Your task to perform on an android device: move an email to a new category in the gmail app Image 0: 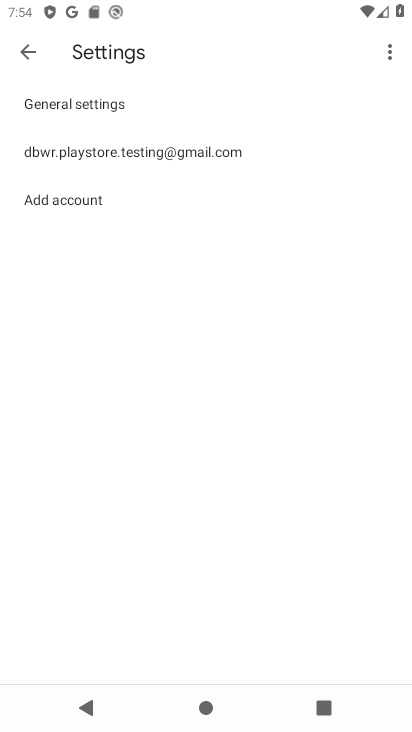
Step 0: press home button
Your task to perform on an android device: move an email to a new category in the gmail app Image 1: 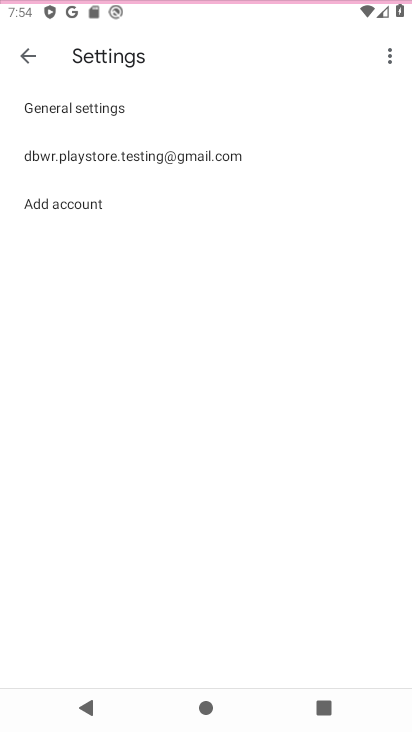
Step 1: press home button
Your task to perform on an android device: move an email to a new category in the gmail app Image 2: 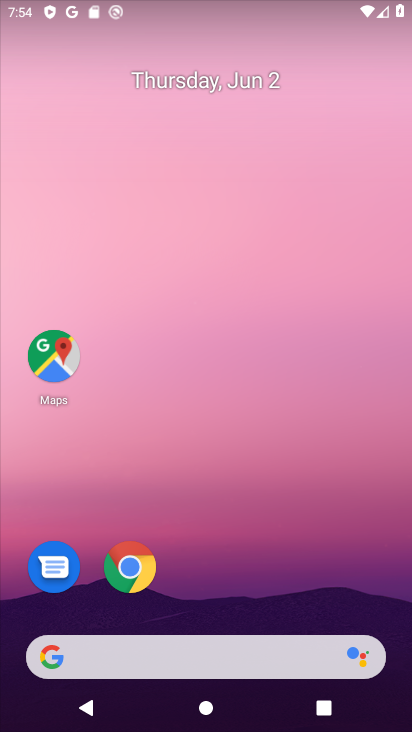
Step 2: drag from (286, 587) to (185, 218)
Your task to perform on an android device: move an email to a new category in the gmail app Image 3: 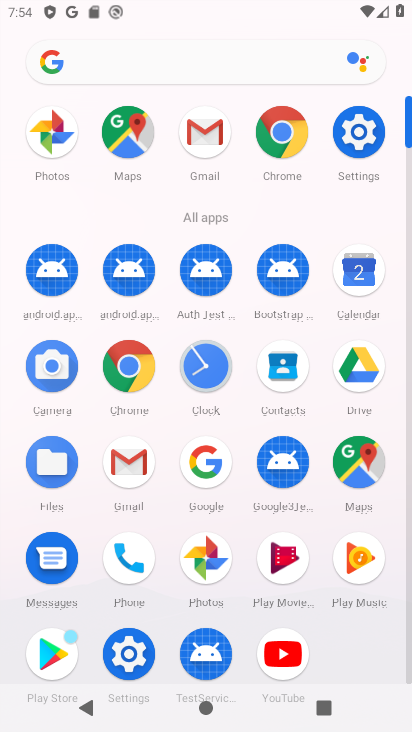
Step 3: click (209, 137)
Your task to perform on an android device: move an email to a new category in the gmail app Image 4: 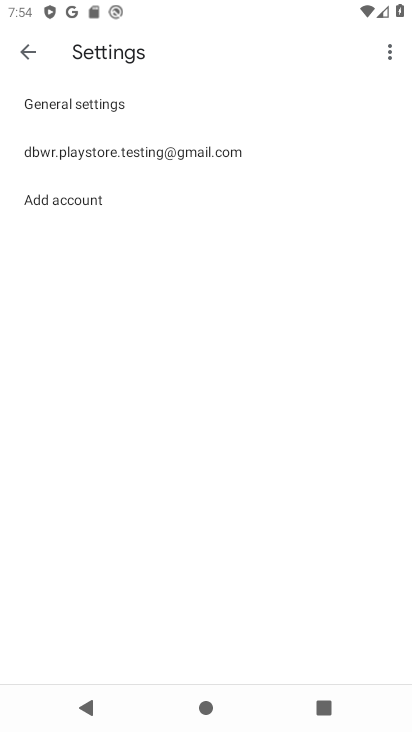
Step 4: click (31, 52)
Your task to perform on an android device: move an email to a new category in the gmail app Image 5: 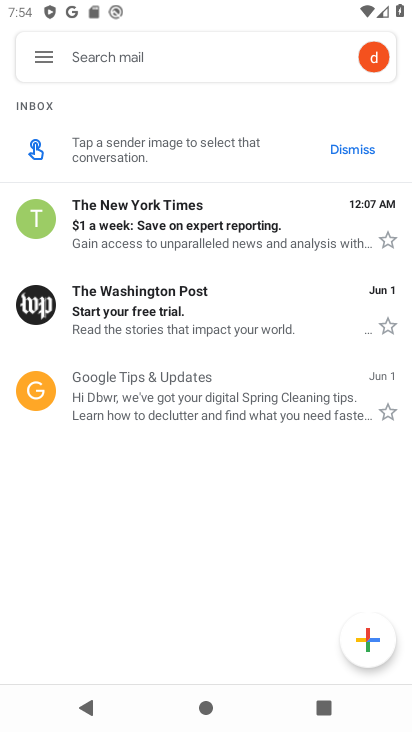
Step 5: click (219, 223)
Your task to perform on an android device: move an email to a new category in the gmail app Image 6: 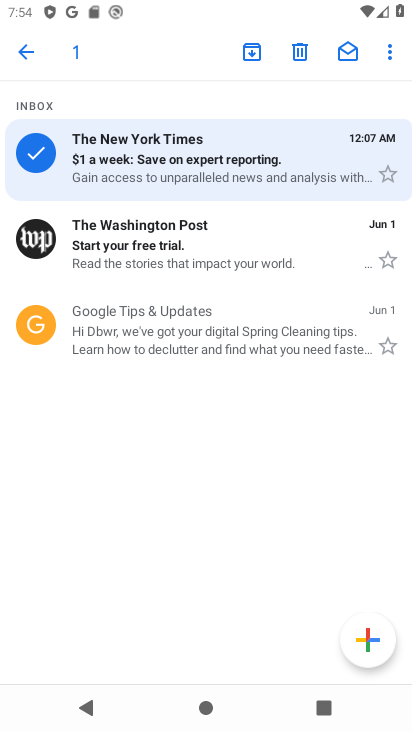
Step 6: click (395, 52)
Your task to perform on an android device: move an email to a new category in the gmail app Image 7: 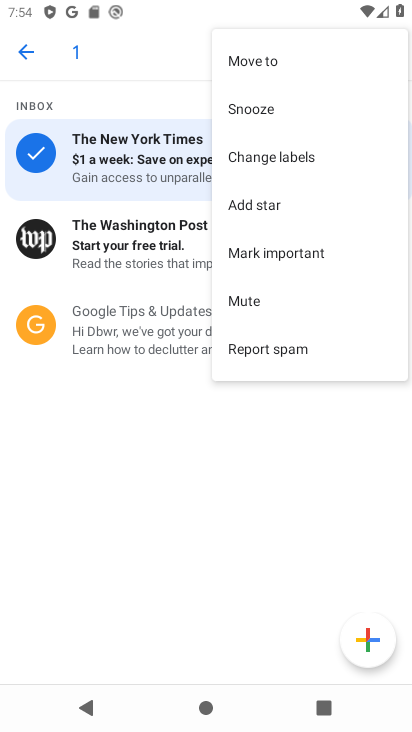
Step 7: click (329, 58)
Your task to perform on an android device: move an email to a new category in the gmail app Image 8: 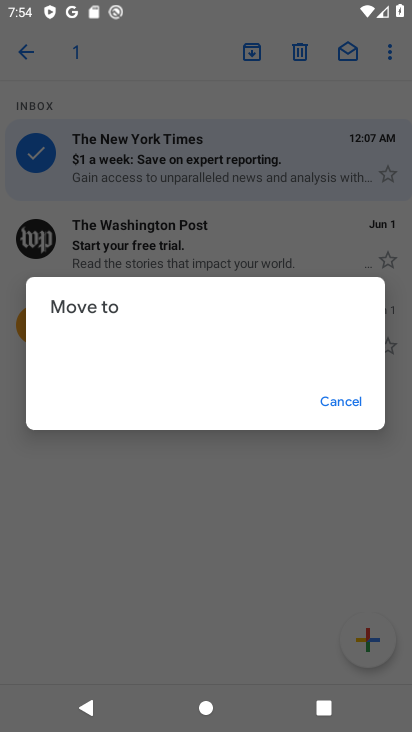
Step 8: click (331, 397)
Your task to perform on an android device: move an email to a new category in the gmail app Image 9: 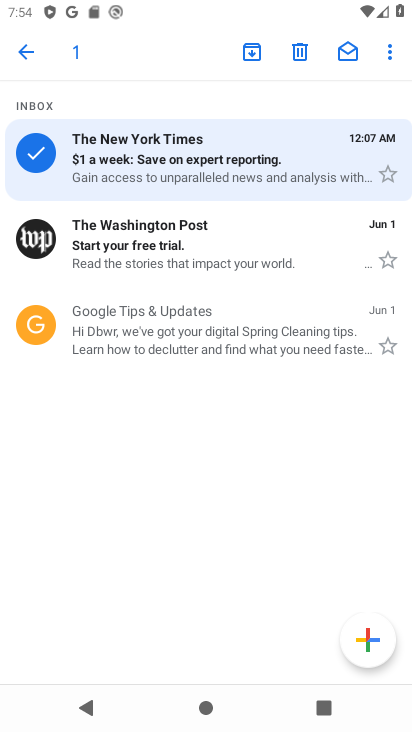
Step 9: click (25, 48)
Your task to perform on an android device: move an email to a new category in the gmail app Image 10: 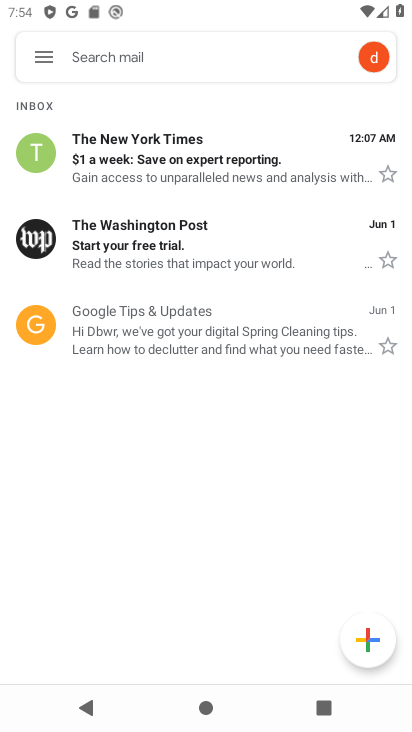
Step 10: click (47, 62)
Your task to perform on an android device: move an email to a new category in the gmail app Image 11: 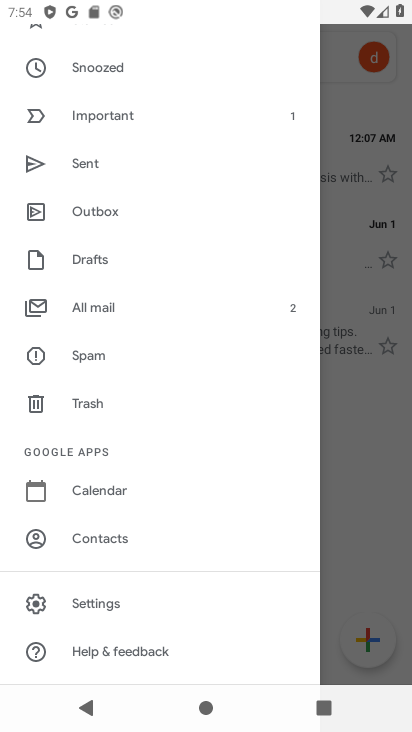
Step 11: click (124, 305)
Your task to perform on an android device: move an email to a new category in the gmail app Image 12: 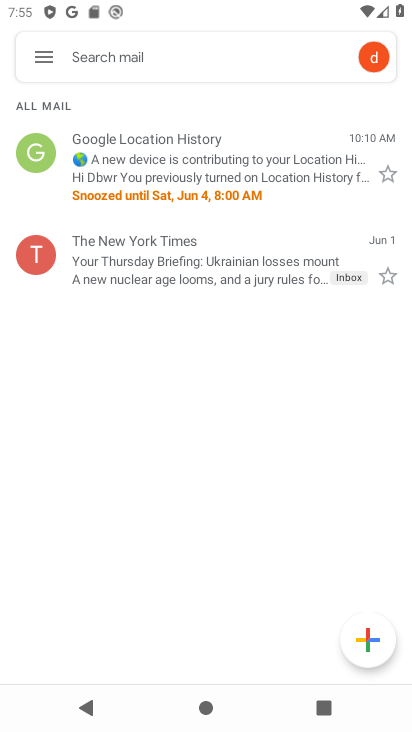
Step 12: click (307, 139)
Your task to perform on an android device: move an email to a new category in the gmail app Image 13: 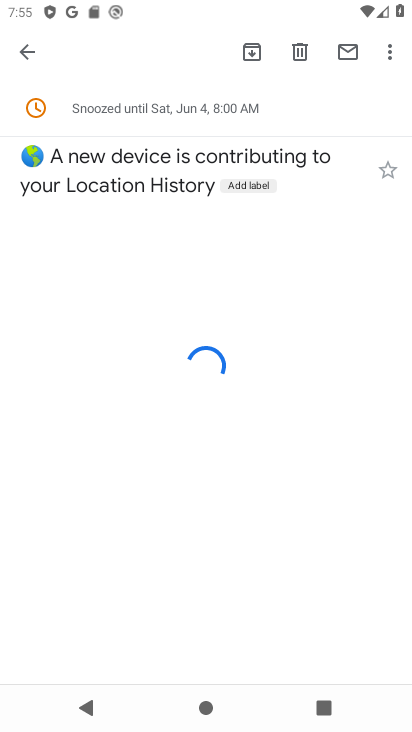
Step 13: click (392, 58)
Your task to perform on an android device: move an email to a new category in the gmail app Image 14: 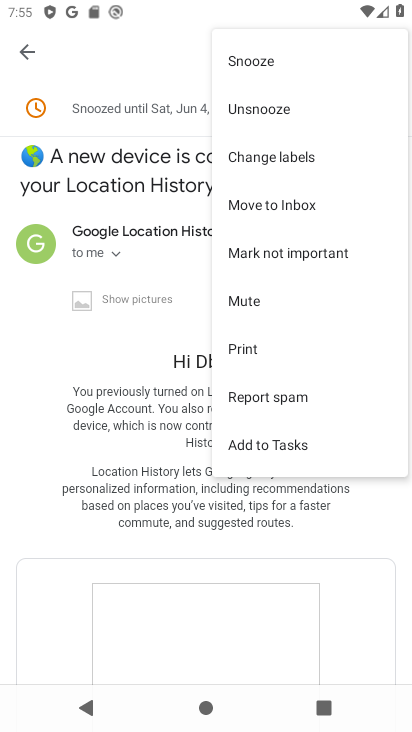
Step 14: click (263, 210)
Your task to perform on an android device: move an email to a new category in the gmail app Image 15: 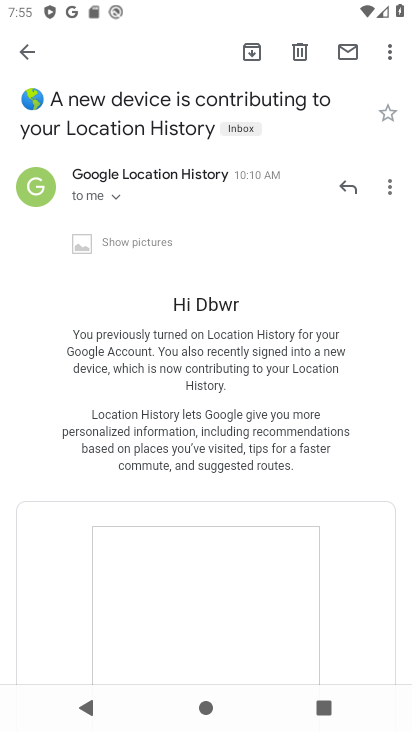
Step 15: task complete